Your task to perform on an android device: allow notifications from all sites in the chrome app Image 0: 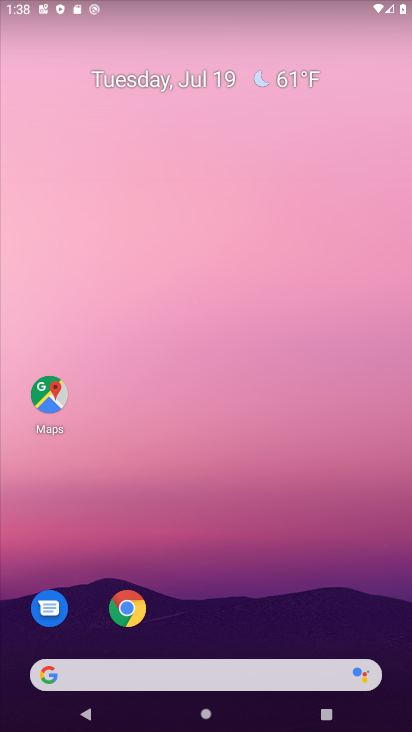
Step 0: drag from (249, 541) to (339, 22)
Your task to perform on an android device: allow notifications from all sites in the chrome app Image 1: 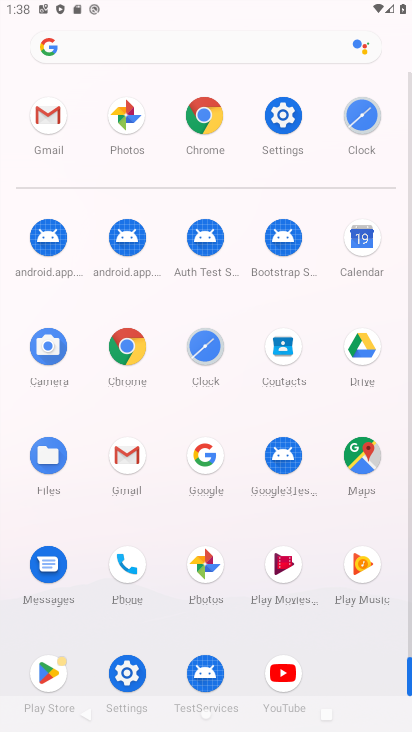
Step 1: click (211, 124)
Your task to perform on an android device: allow notifications from all sites in the chrome app Image 2: 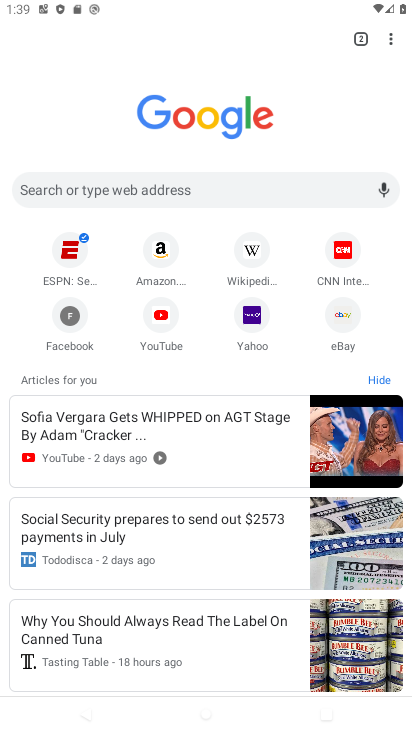
Step 2: drag from (396, 39) to (272, 326)
Your task to perform on an android device: allow notifications from all sites in the chrome app Image 3: 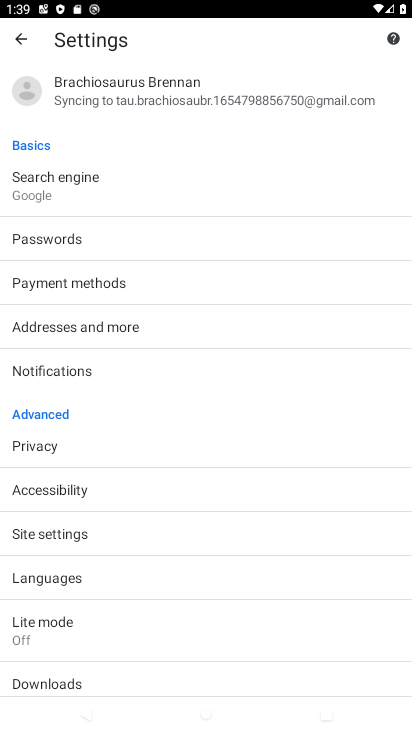
Step 3: click (70, 535)
Your task to perform on an android device: allow notifications from all sites in the chrome app Image 4: 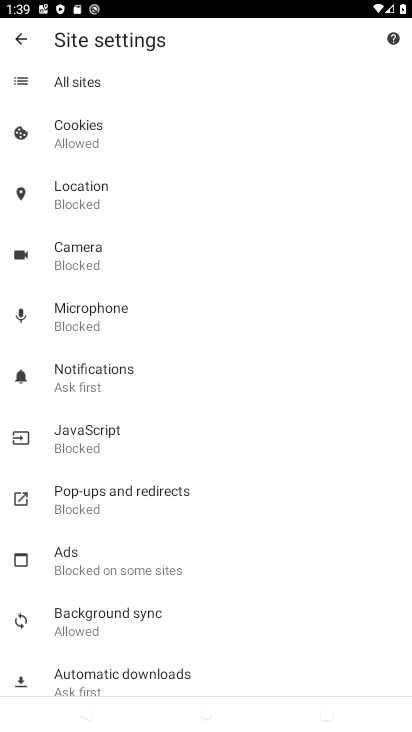
Step 4: click (96, 375)
Your task to perform on an android device: allow notifications from all sites in the chrome app Image 5: 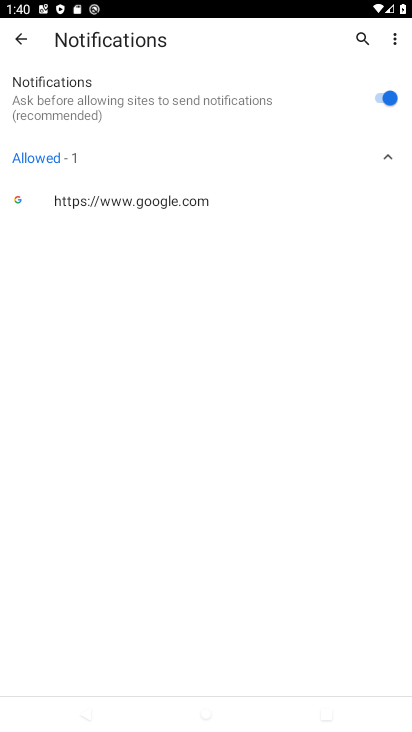
Step 5: task complete